Your task to perform on an android device: Go to location settings Image 0: 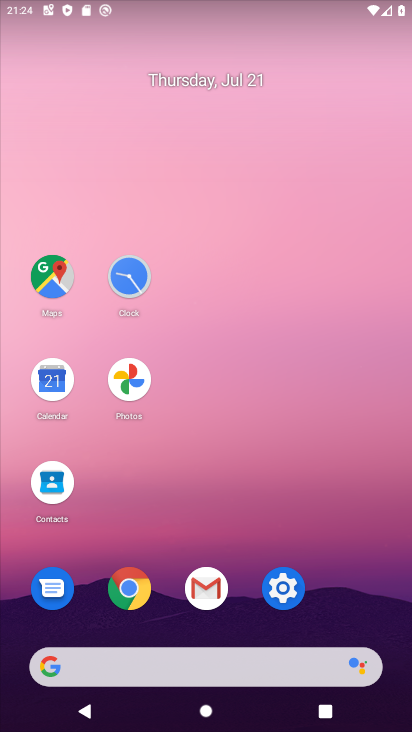
Step 0: click (287, 589)
Your task to perform on an android device: Go to location settings Image 1: 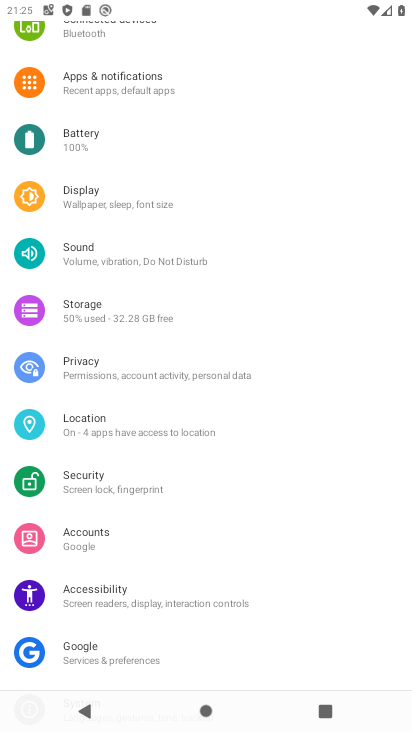
Step 1: click (97, 413)
Your task to perform on an android device: Go to location settings Image 2: 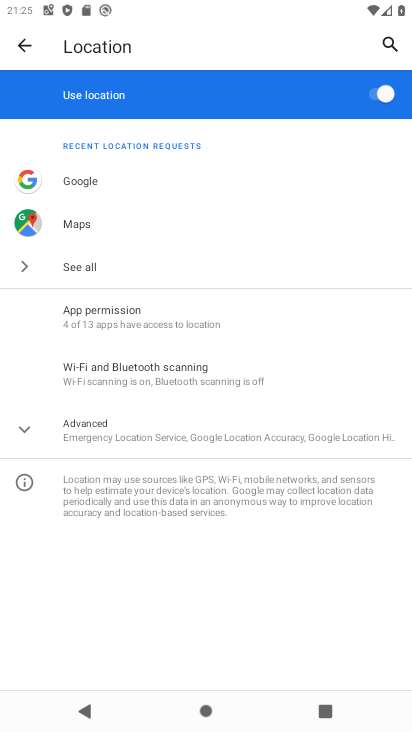
Step 2: task complete